Your task to perform on an android device: Open Chrome and go to settings Image 0: 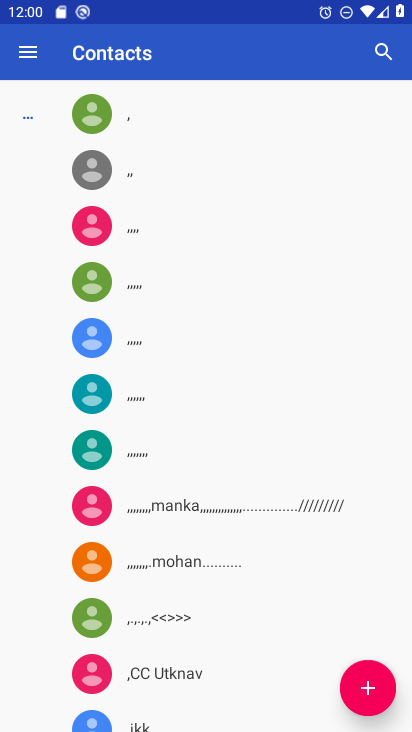
Step 0: press home button
Your task to perform on an android device: Open Chrome and go to settings Image 1: 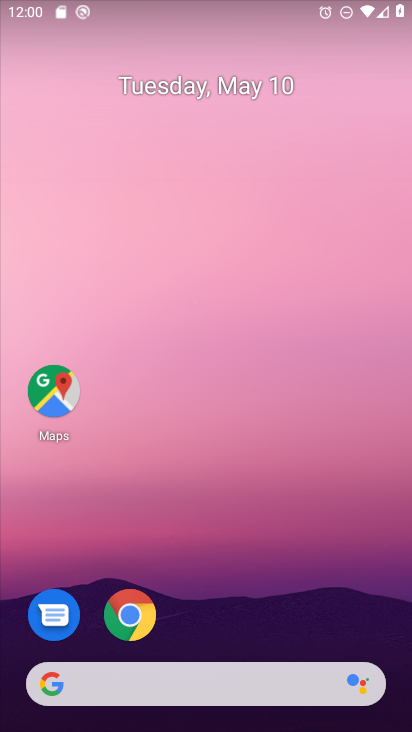
Step 1: drag from (214, 698) to (341, 236)
Your task to perform on an android device: Open Chrome and go to settings Image 2: 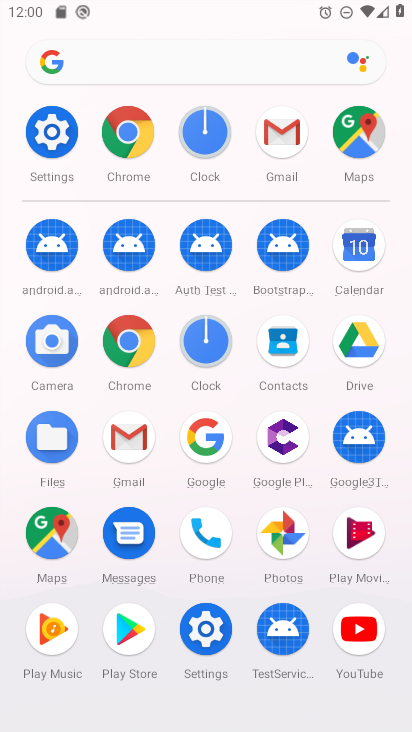
Step 2: click (125, 336)
Your task to perform on an android device: Open Chrome and go to settings Image 3: 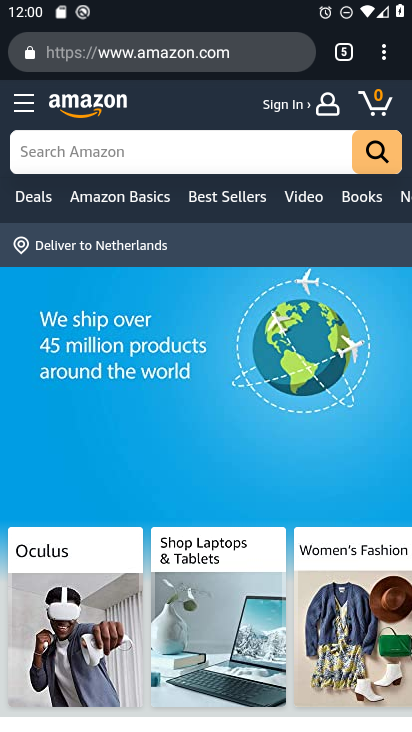
Step 3: click (384, 53)
Your task to perform on an android device: Open Chrome and go to settings Image 4: 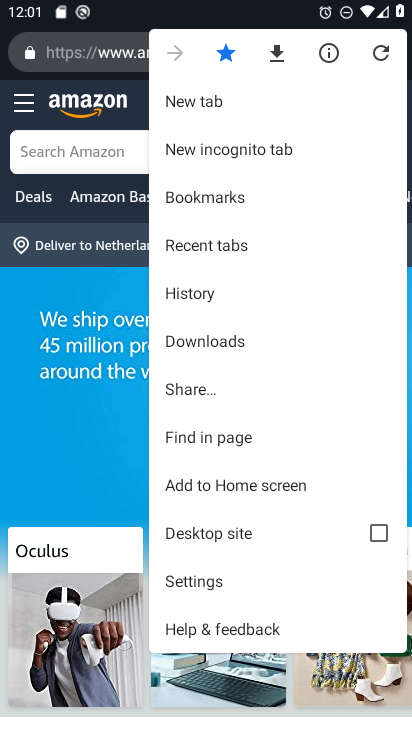
Step 4: click (196, 571)
Your task to perform on an android device: Open Chrome and go to settings Image 5: 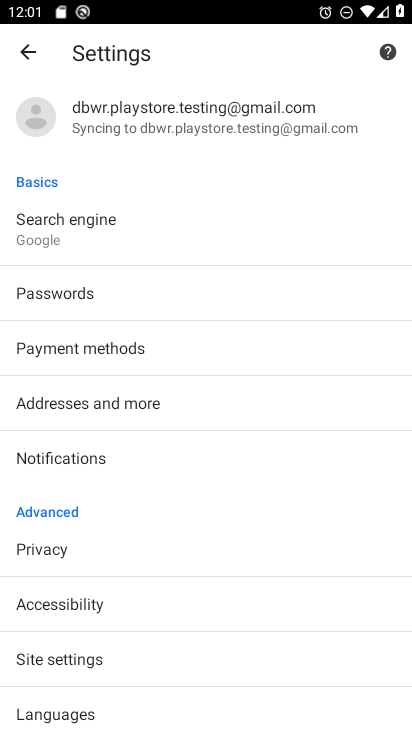
Step 5: task complete